Your task to perform on an android device: Open Android settings Image 0: 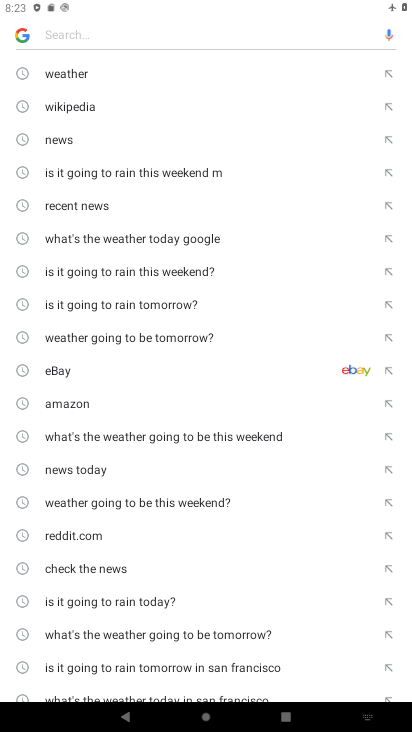
Step 0: press home button
Your task to perform on an android device: Open Android settings Image 1: 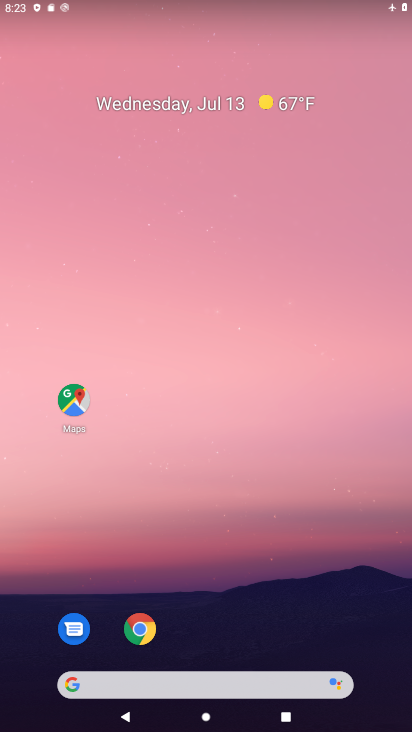
Step 1: drag from (225, 618) to (266, 6)
Your task to perform on an android device: Open Android settings Image 2: 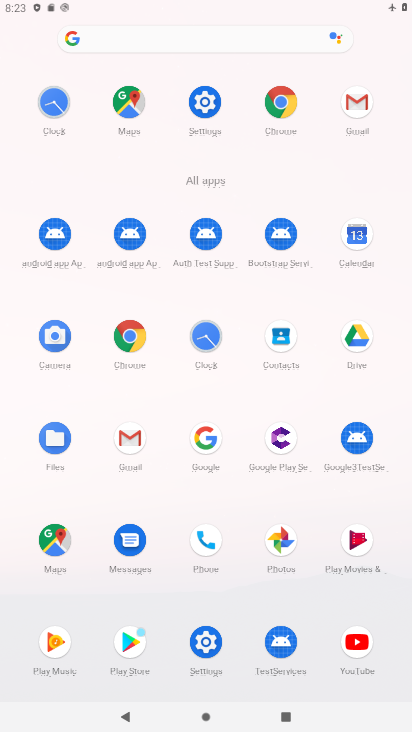
Step 2: click (210, 649)
Your task to perform on an android device: Open Android settings Image 3: 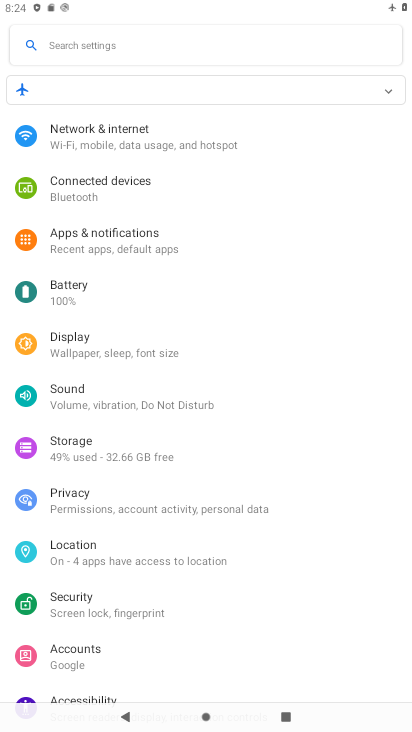
Step 3: drag from (124, 582) to (210, 28)
Your task to perform on an android device: Open Android settings Image 4: 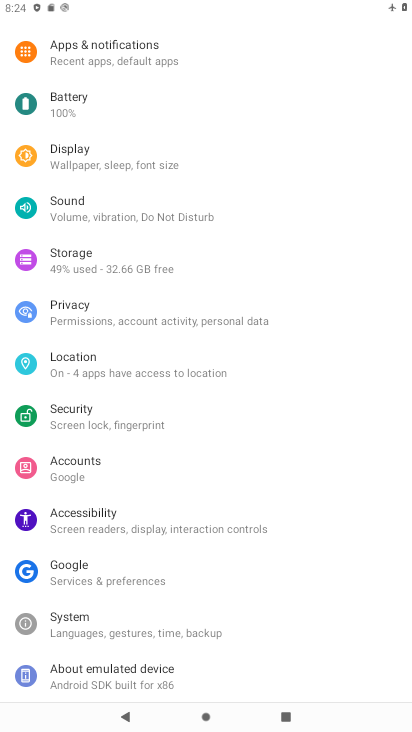
Step 4: click (127, 679)
Your task to perform on an android device: Open Android settings Image 5: 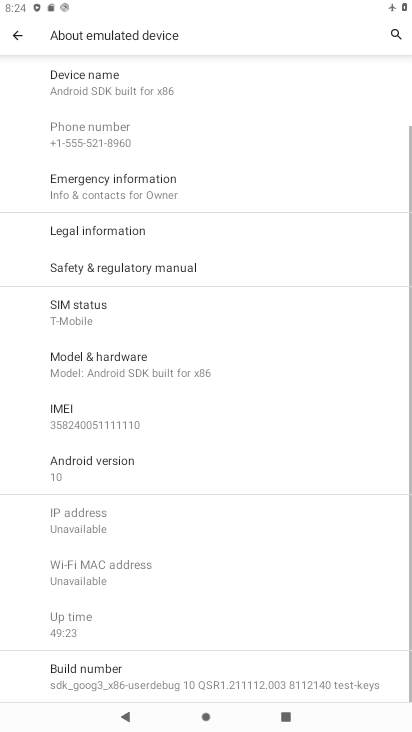
Step 5: click (91, 463)
Your task to perform on an android device: Open Android settings Image 6: 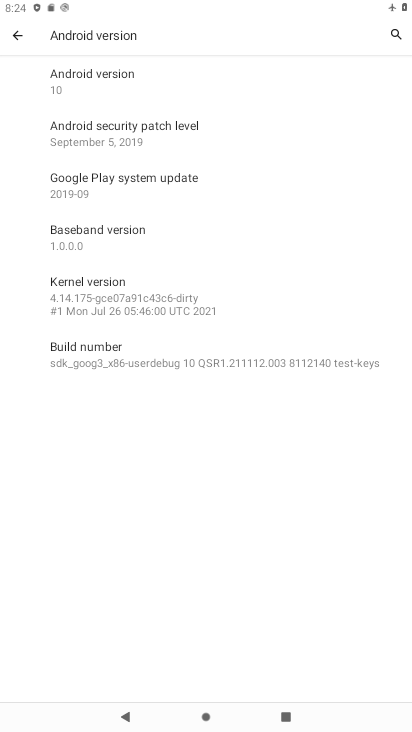
Step 6: task complete